Your task to perform on an android device: Open battery settings Image 0: 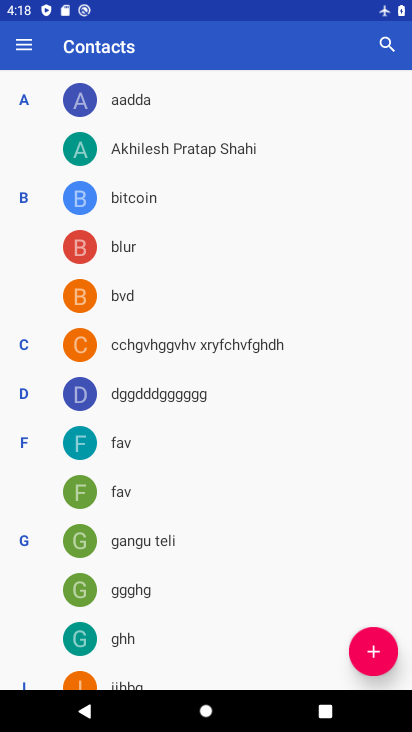
Step 0: press back button
Your task to perform on an android device: Open battery settings Image 1: 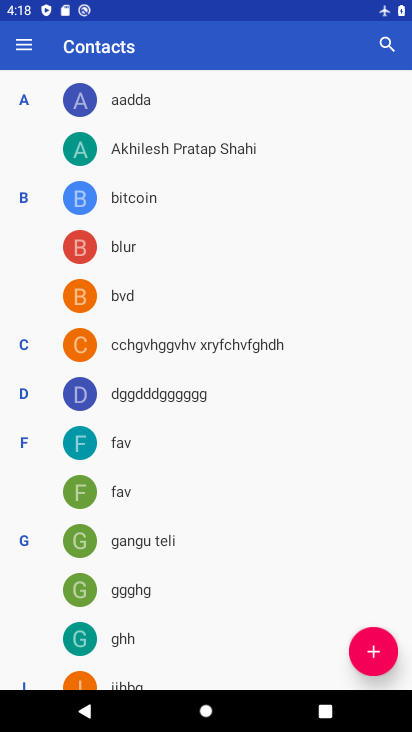
Step 1: press back button
Your task to perform on an android device: Open battery settings Image 2: 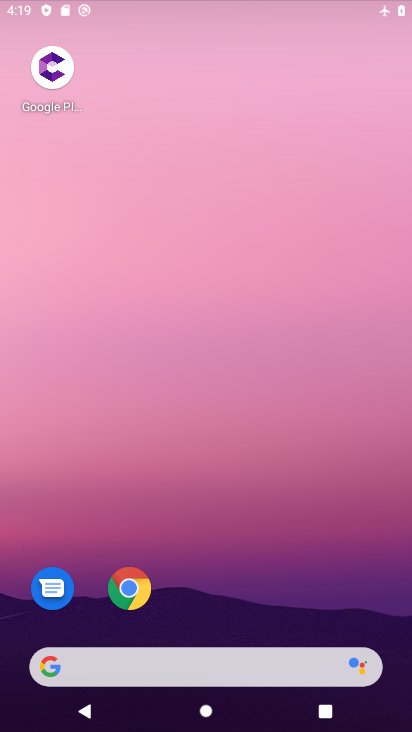
Step 2: press back button
Your task to perform on an android device: Open battery settings Image 3: 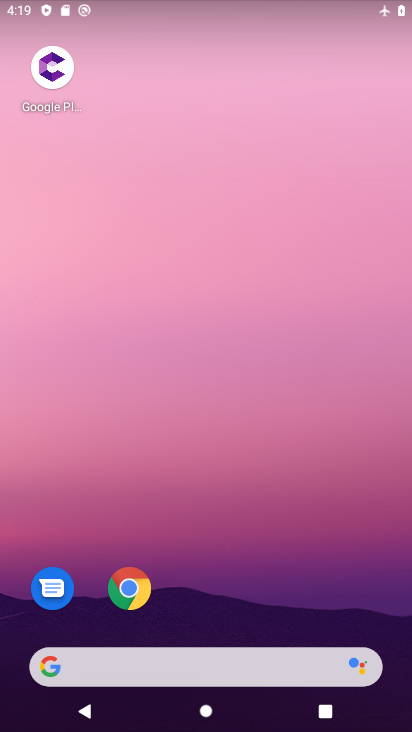
Step 3: drag from (267, 539) to (170, 88)
Your task to perform on an android device: Open battery settings Image 4: 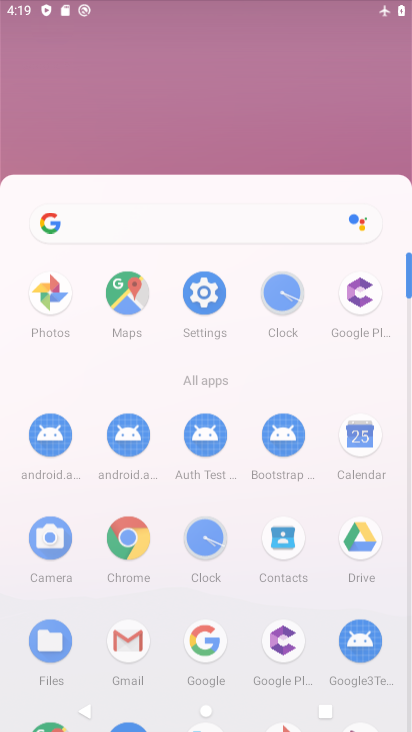
Step 4: drag from (268, 476) to (268, 58)
Your task to perform on an android device: Open battery settings Image 5: 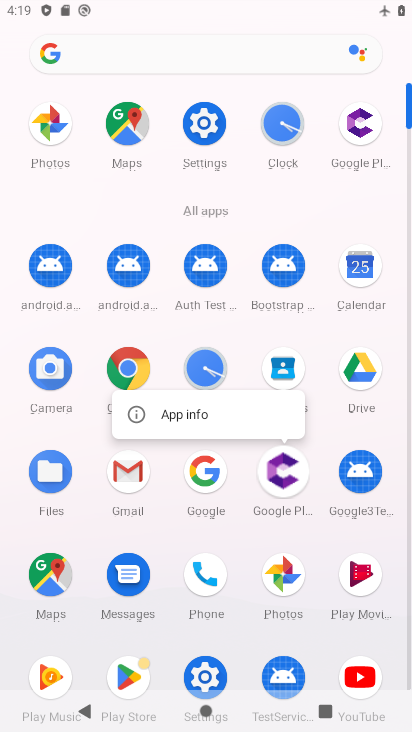
Step 5: drag from (262, 285) to (248, 92)
Your task to perform on an android device: Open battery settings Image 6: 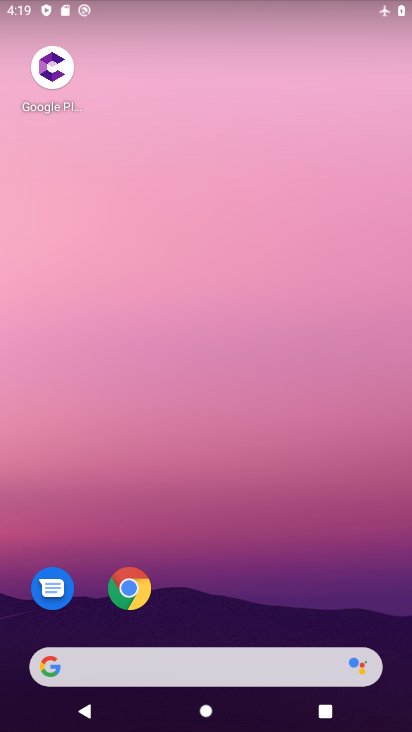
Step 6: click (194, 125)
Your task to perform on an android device: Open battery settings Image 7: 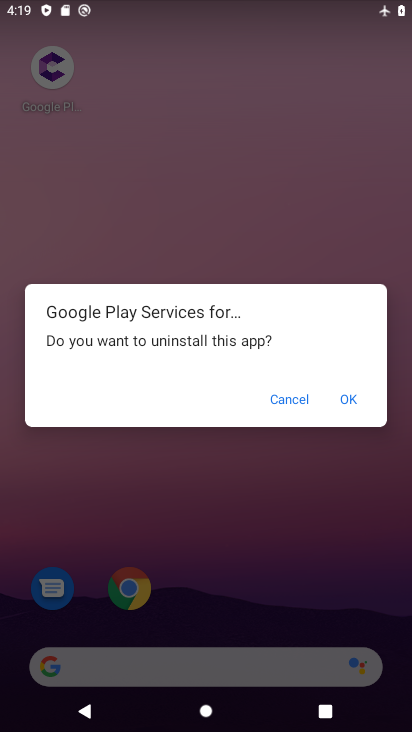
Step 7: click (350, 390)
Your task to perform on an android device: Open battery settings Image 8: 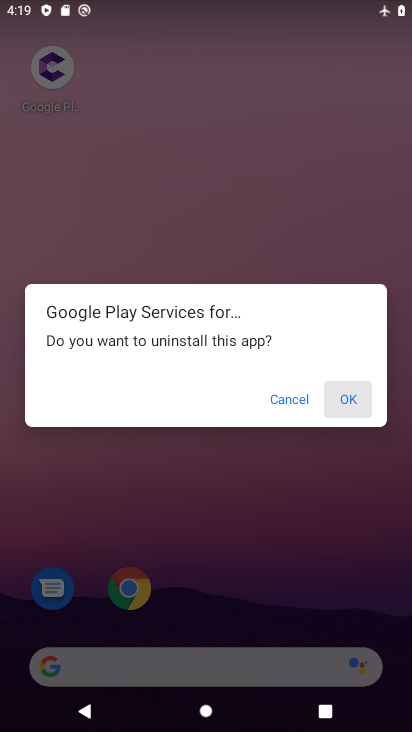
Step 8: click (349, 390)
Your task to perform on an android device: Open battery settings Image 9: 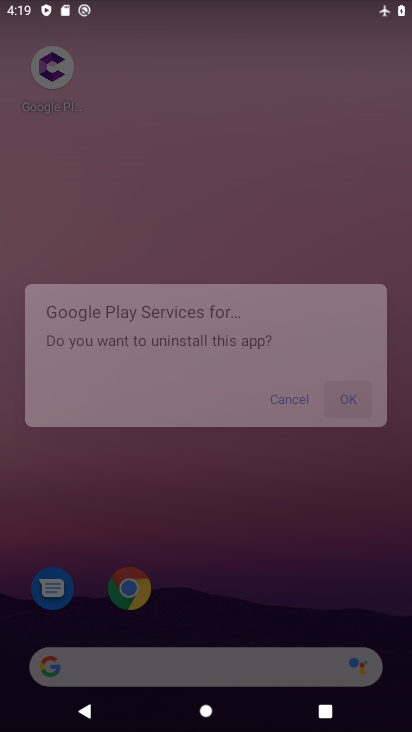
Step 9: click (346, 386)
Your task to perform on an android device: Open battery settings Image 10: 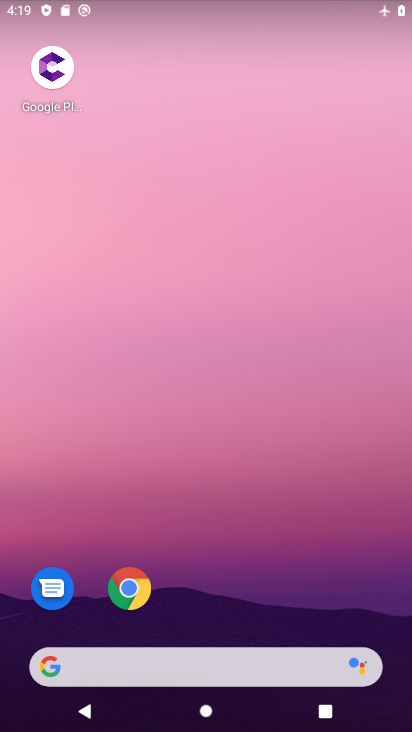
Step 10: click (344, 385)
Your task to perform on an android device: Open battery settings Image 11: 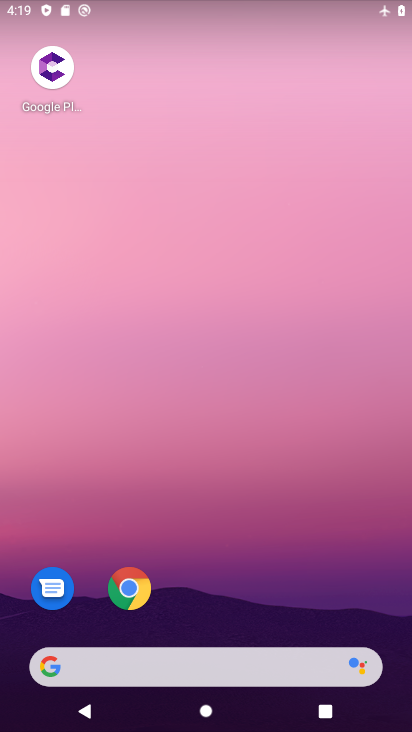
Step 11: drag from (250, 639) to (247, 32)
Your task to perform on an android device: Open battery settings Image 12: 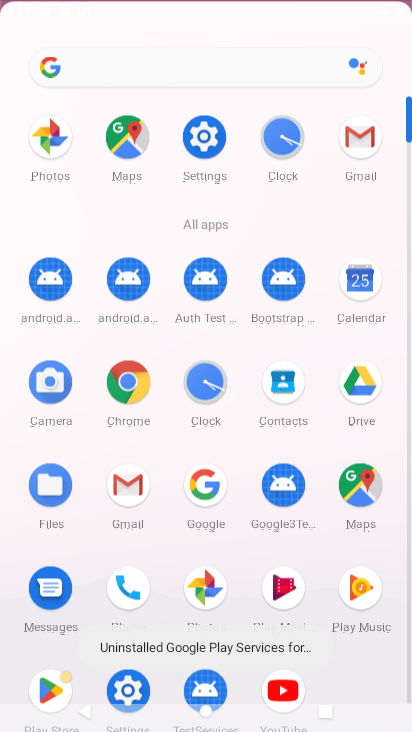
Step 12: drag from (260, 571) to (252, 152)
Your task to perform on an android device: Open battery settings Image 13: 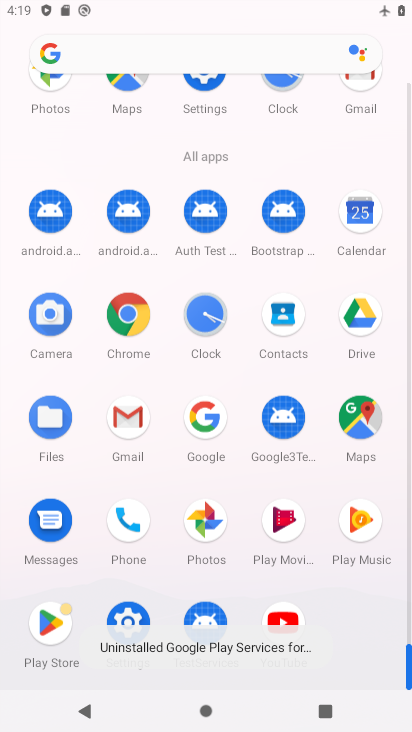
Step 13: drag from (206, 406) to (199, 213)
Your task to perform on an android device: Open battery settings Image 14: 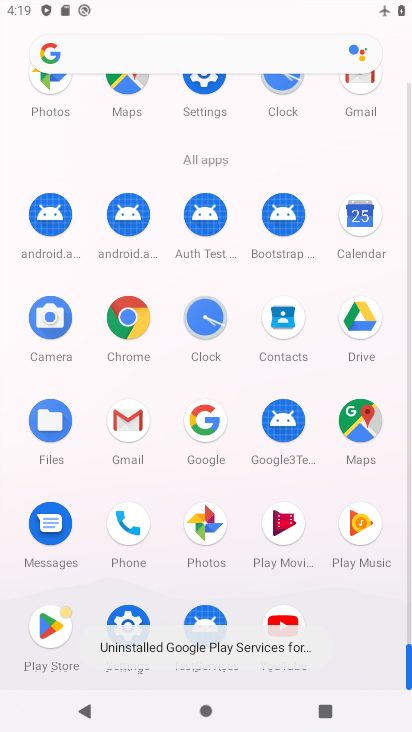
Step 14: drag from (229, 160) to (217, 372)
Your task to perform on an android device: Open battery settings Image 15: 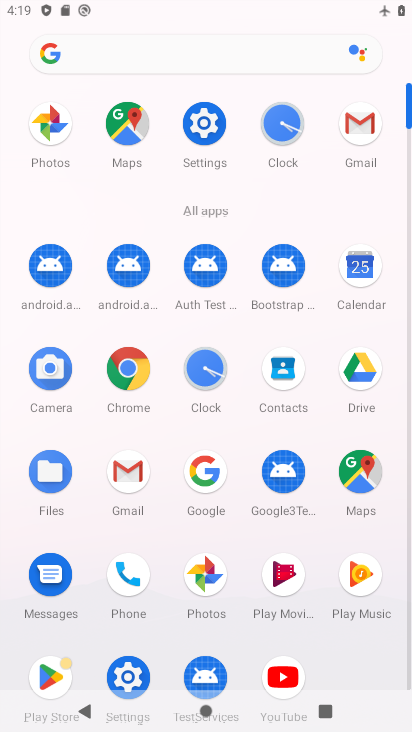
Step 15: click (205, 130)
Your task to perform on an android device: Open battery settings Image 16: 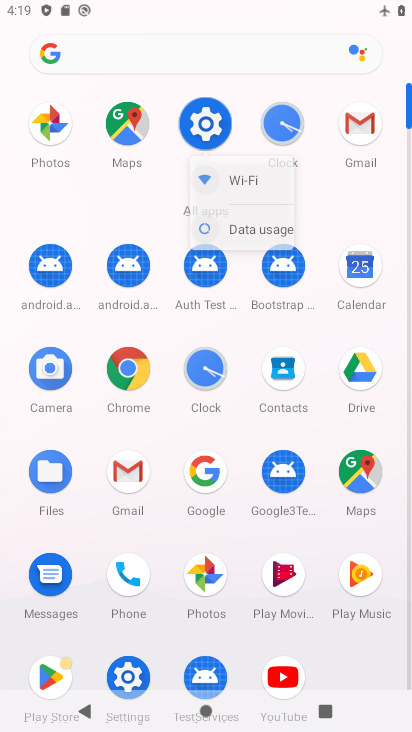
Step 16: click (211, 139)
Your task to perform on an android device: Open battery settings Image 17: 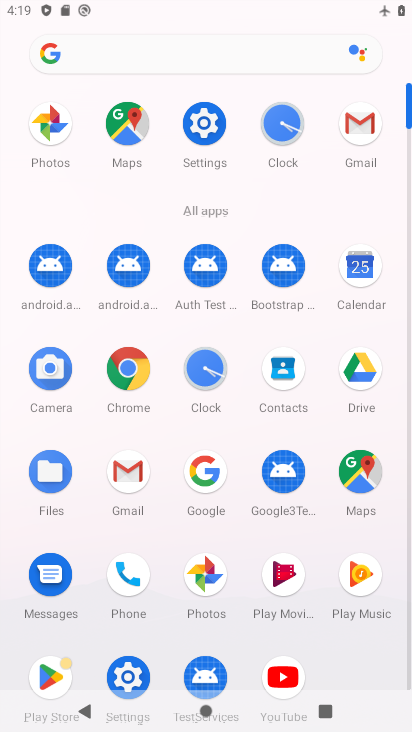
Step 17: click (206, 133)
Your task to perform on an android device: Open battery settings Image 18: 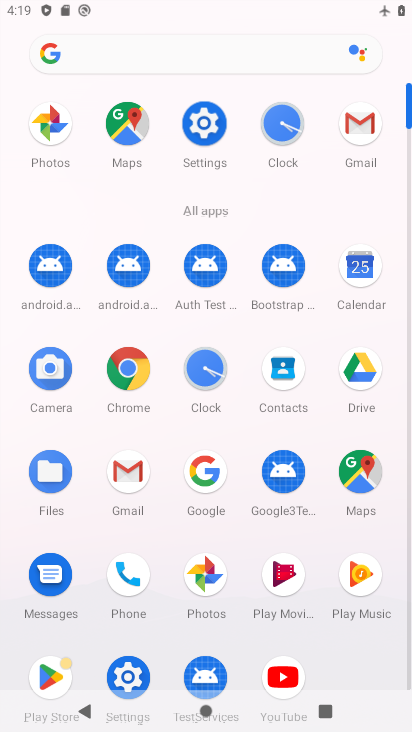
Step 18: click (206, 133)
Your task to perform on an android device: Open battery settings Image 19: 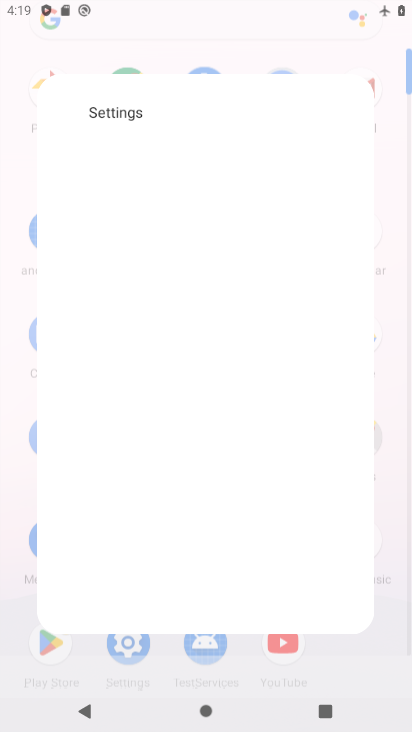
Step 19: click (214, 130)
Your task to perform on an android device: Open battery settings Image 20: 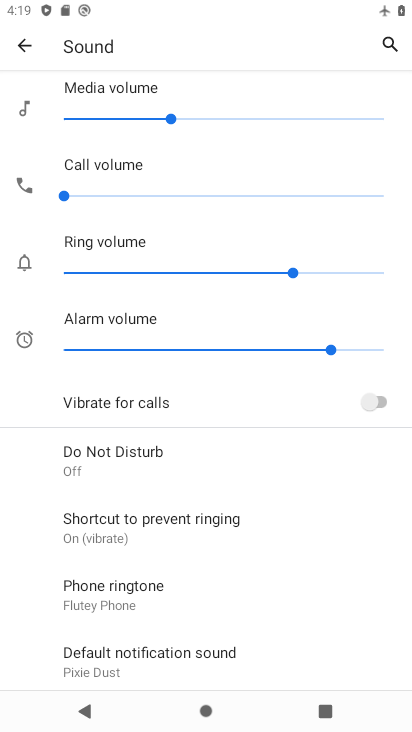
Step 20: click (22, 47)
Your task to perform on an android device: Open battery settings Image 21: 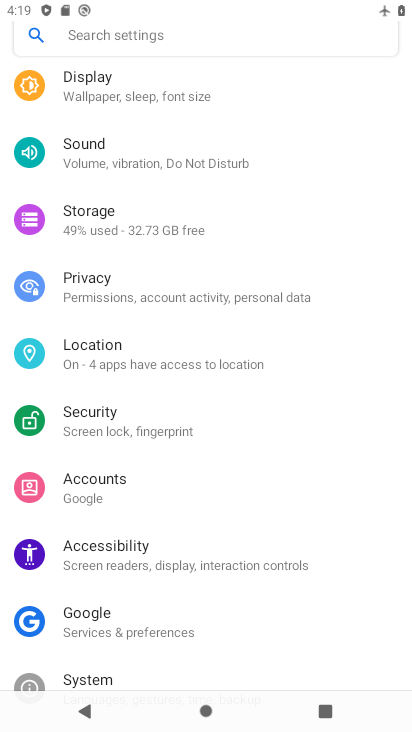
Step 21: drag from (86, 562) to (97, 156)
Your task to perform on an android device: Open battery settings Image 22: 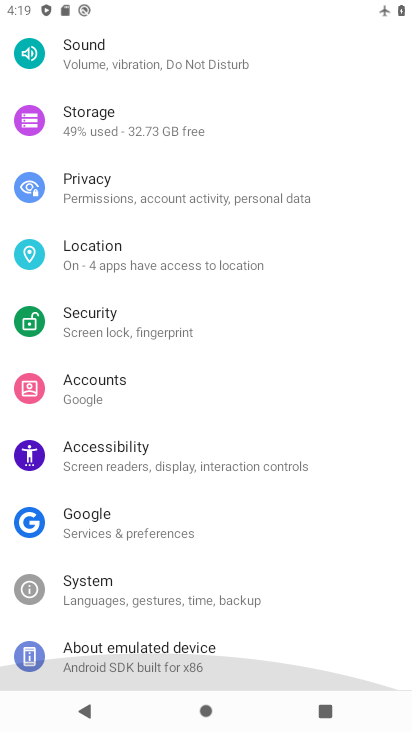
Step 22: drag from (147, 488) to (143, 241)
Your task to perform on an android device: Open battery settings Image 23: 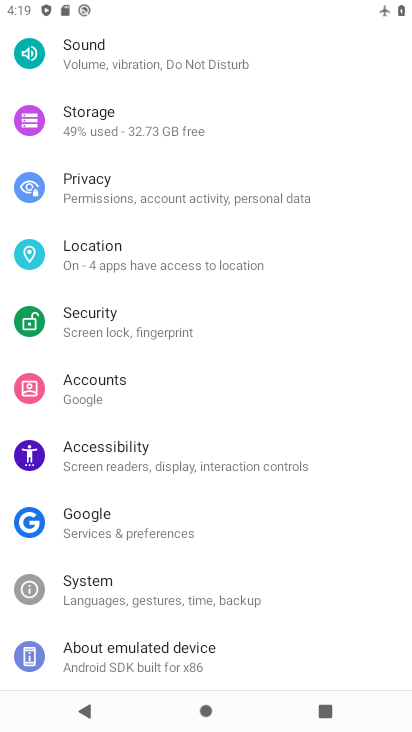
Step 23: drag from (125, 258) to (164, 549)
Your task to perform on an android device: Open battery settings Image 24: 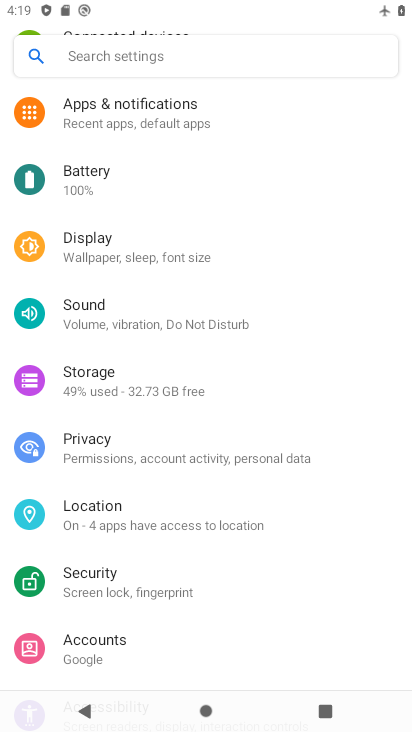
Step 24: click (103, 416)
Your task to perform on an android device: Open battery settings Image 25: 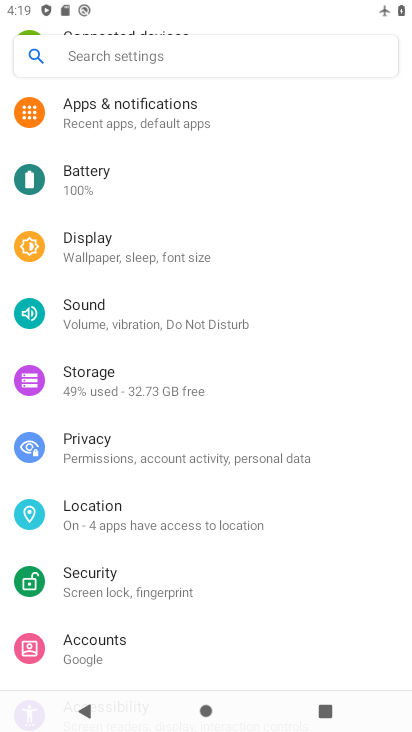
Step 25: drag from (98, 401) to (95, 511)
Your task to perform on an android device: Open battery settings Image 26: 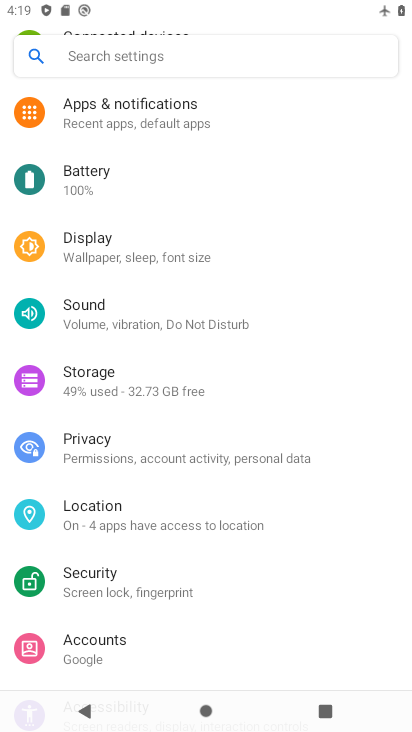
Step 26: drag from (110, 226) to (177, 612)
Your task to perform on an android device: Open battery settings Image 27: 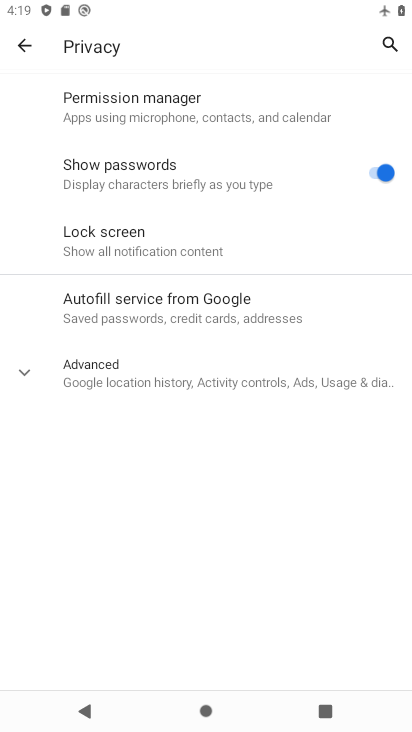
Step 27: click (79, 185)
Your task to perform on an android device: Open battery settings Image 28: 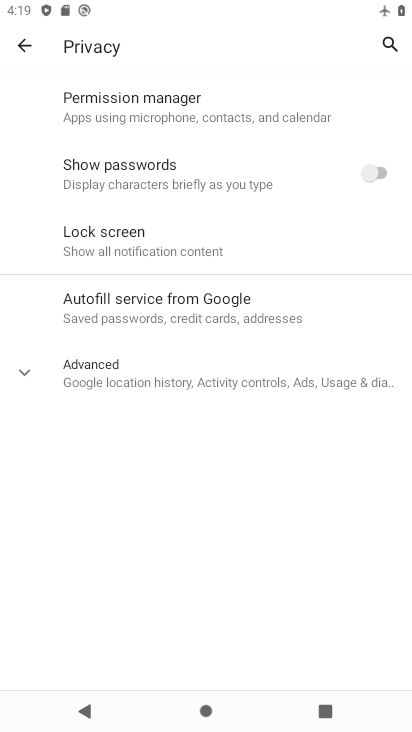
Step 28: click (364, 170)
Your task to perform on an android device: Open battery settings Image 29: 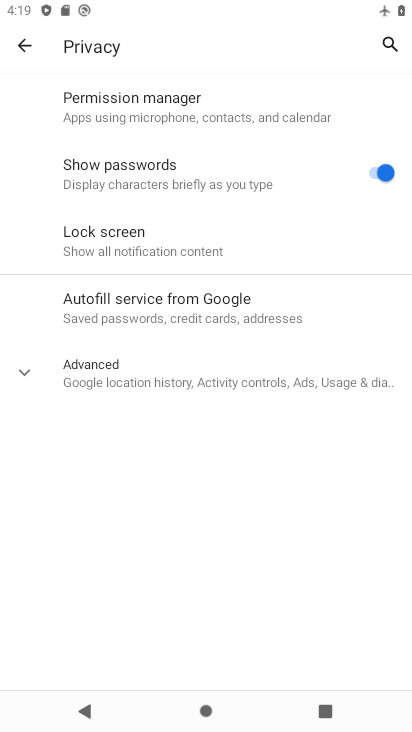
Step 29: click (380, 173)
Your task to perform on an android device: Open battery settings Image 30: 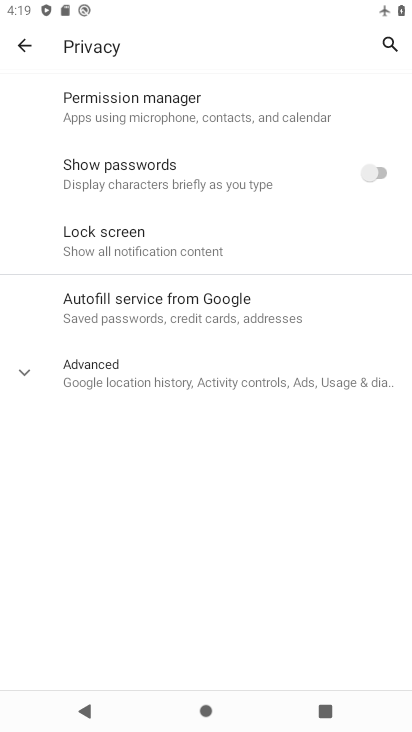
Step 30: click (355, 162)
Your task to perform on an android device: Open battery settings Image 31: 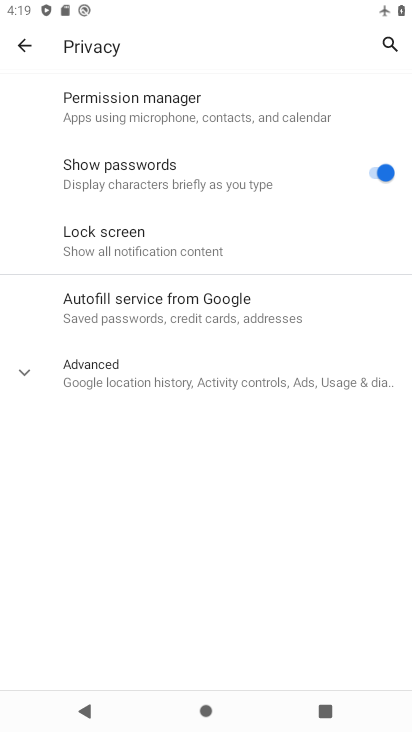
Step 31: click (28, 42)
Your task to perform on an android device: Open battery settings Image 32: 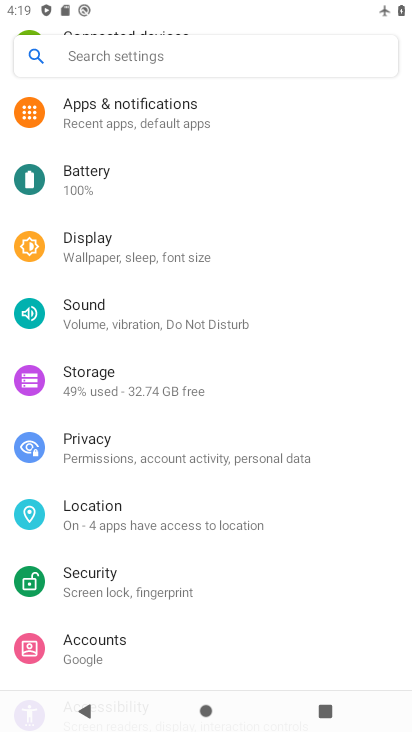
Step 32: click (78, 160)
Your task to perform on an android device: Open battery settings Image 33: 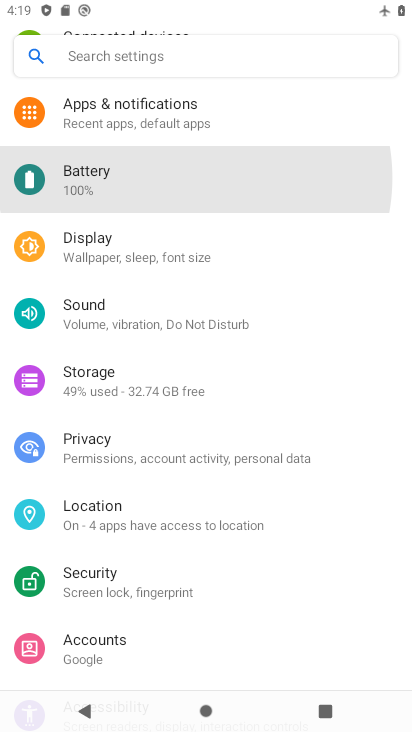
Step 33: click (82, 173)
Your task to perform on an android device: Open battery settings Image 34: 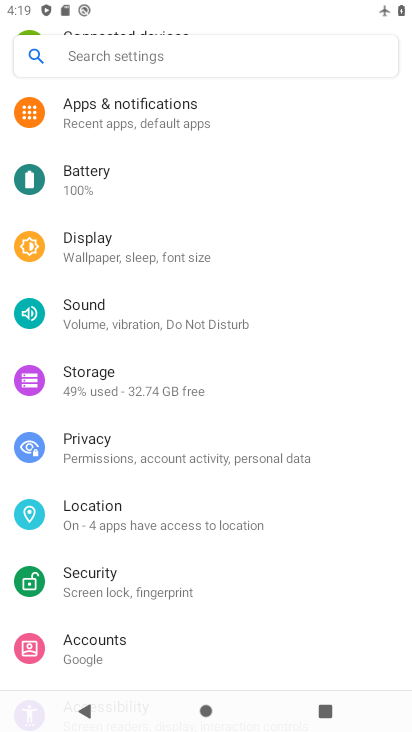
Step 34: click (86, 177)
Your task to perform on an android device: Open battery settings Image 35: 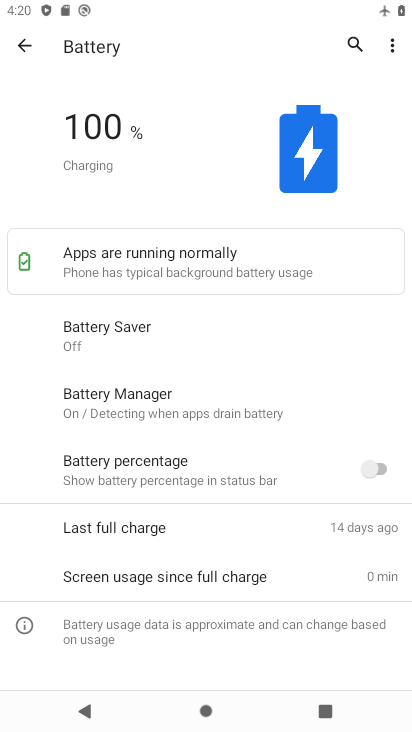
Step 35: task complete